Your task to perform on an android device: open app "The Home Depot" (install if not already installed) Image 0: 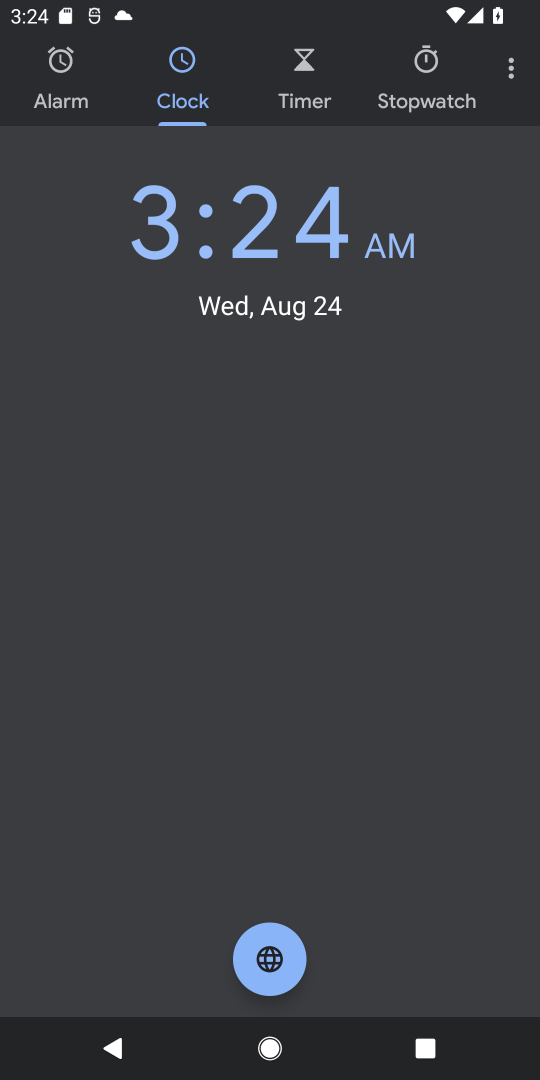
Step 0: press home button
Your task to perform on an android device: open app "The Home Depot" (install if not already installed) Image 1: 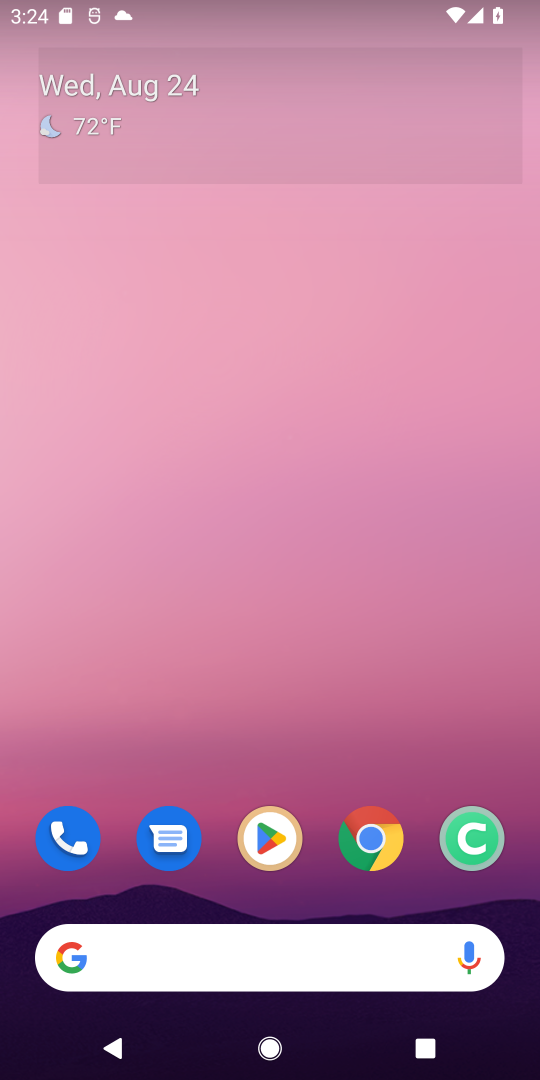
Step 1: click (266, 843)
Your task to perform on an android device: open app "The Home Depot" (install if not already installed) Image 2: 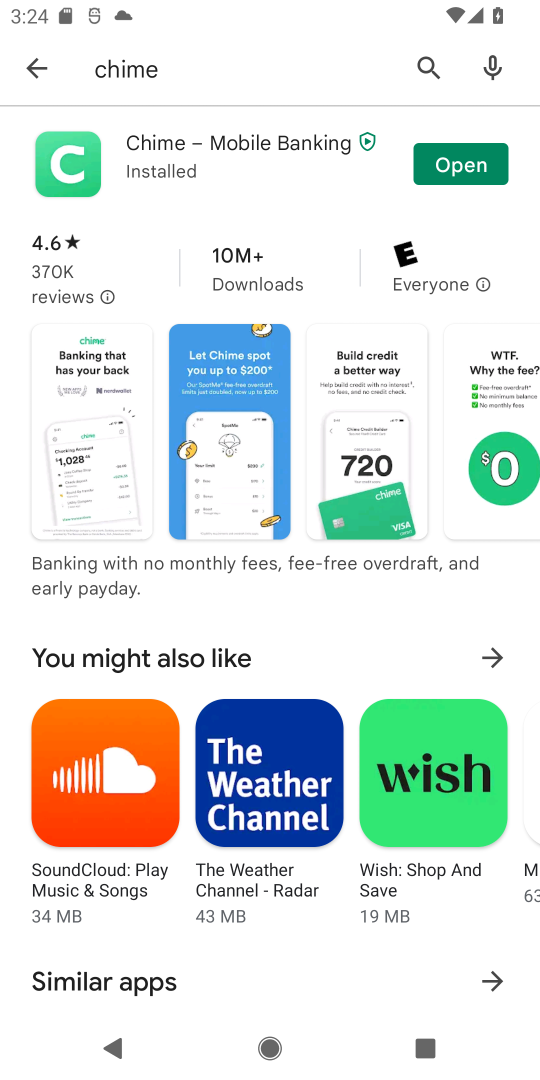
Step 2: click (14, 71)
Your task to perform on an android device: open app "The Home Depot" (install if not already installed) Image 3: 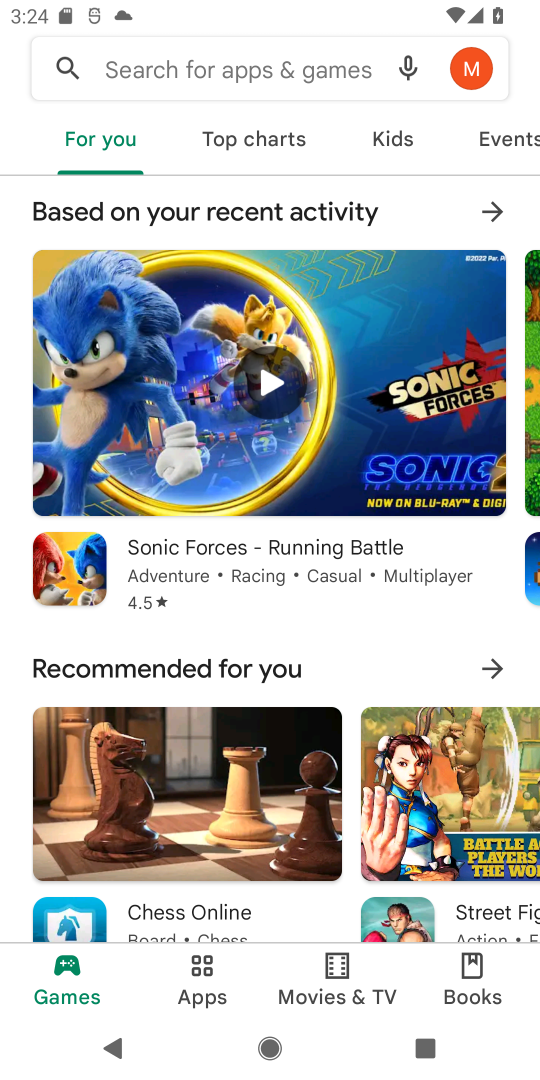
Step 3: click (246, 63)
Your task to perform on an android device: open app "The Home Depot" (install if not already installed) Image 4: 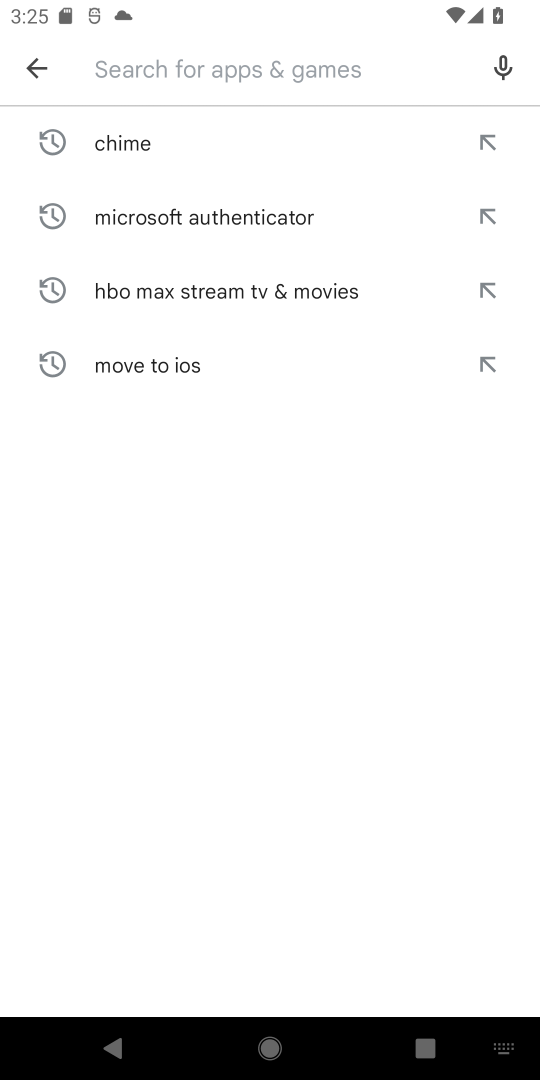
Step 4: click (6, 1074)
Your task to perform on an android device: open app "The Home Depot" (install if not already installed) Image 5: 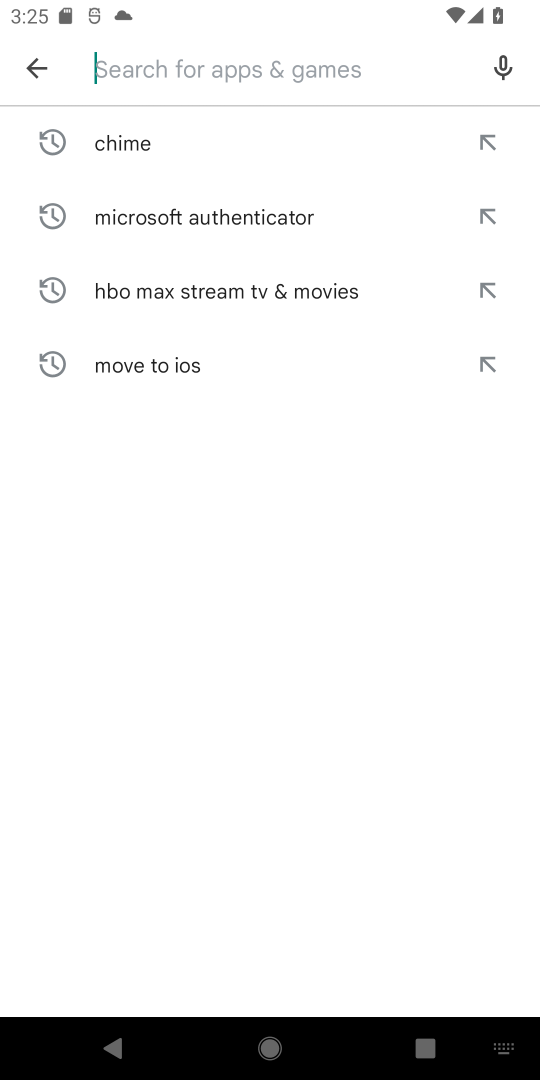
Step 5: type "The Home Depot"
Your task to perform on an android device: open app "The Home Depot" (install if not already installed) Image 6: 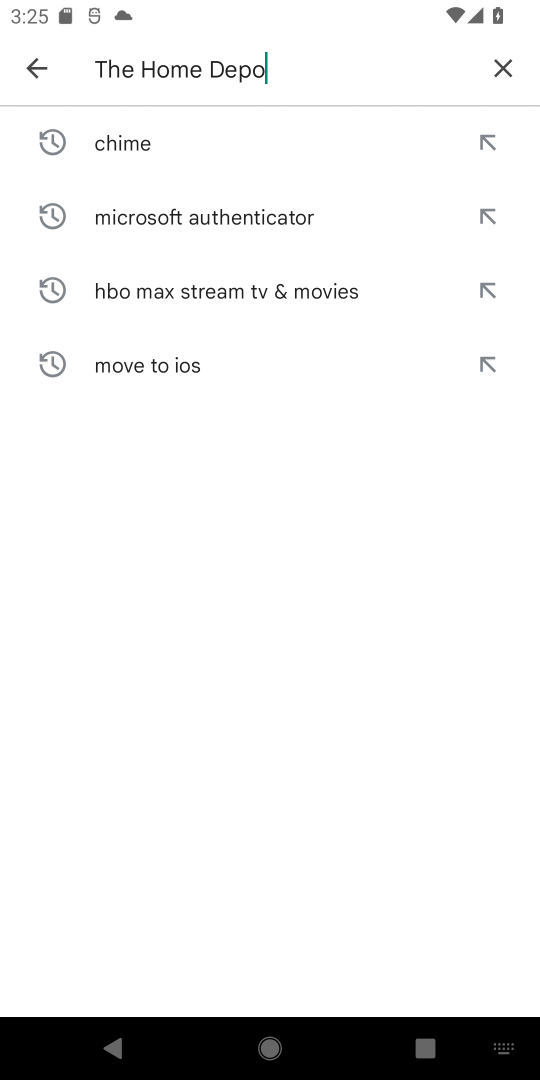
Step 6: drag from (6, 1074) to (518, 315)
Your task to perform on an android device: open app "The Home Depot" (install if not already installed) Image 7: 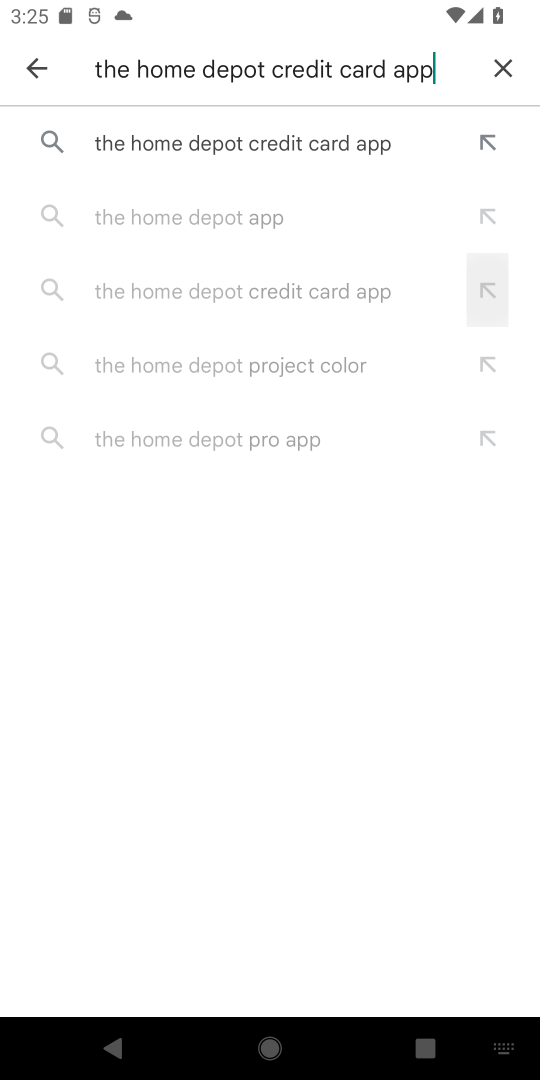
Step 7: click (248, 131)
Your task to perform on an android device: open app "The Home Depot" (install if not already installed) Image 8: 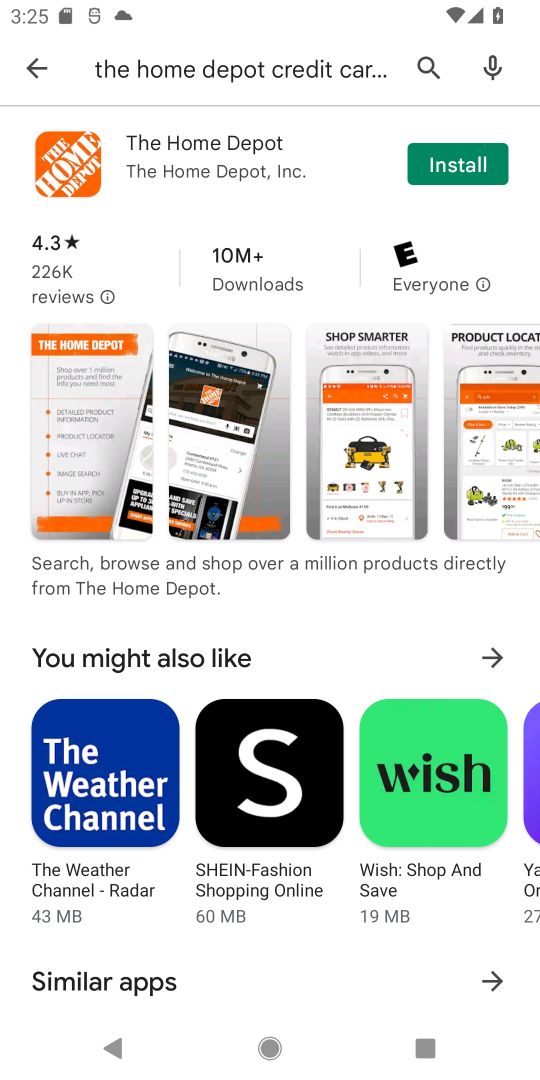
Step 8: click (486, 169)
Your task to perform on an android device: open app "The Home Depot" (install if not already installed) Image 9: 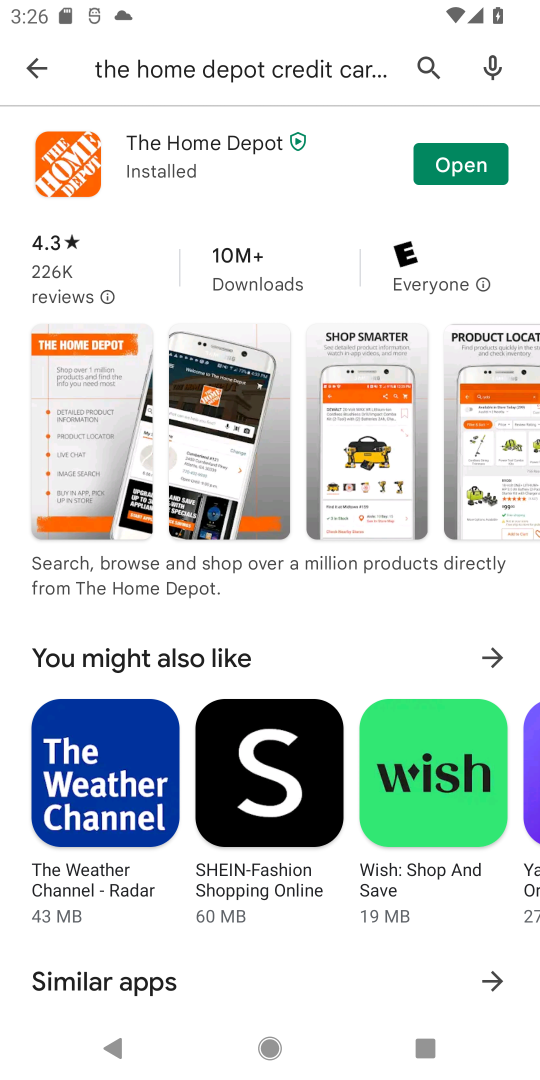
Step 9: click (454, 151)
Your task to perform on an android device: open app "The Home Depot" (install if not already installed) Image 10: 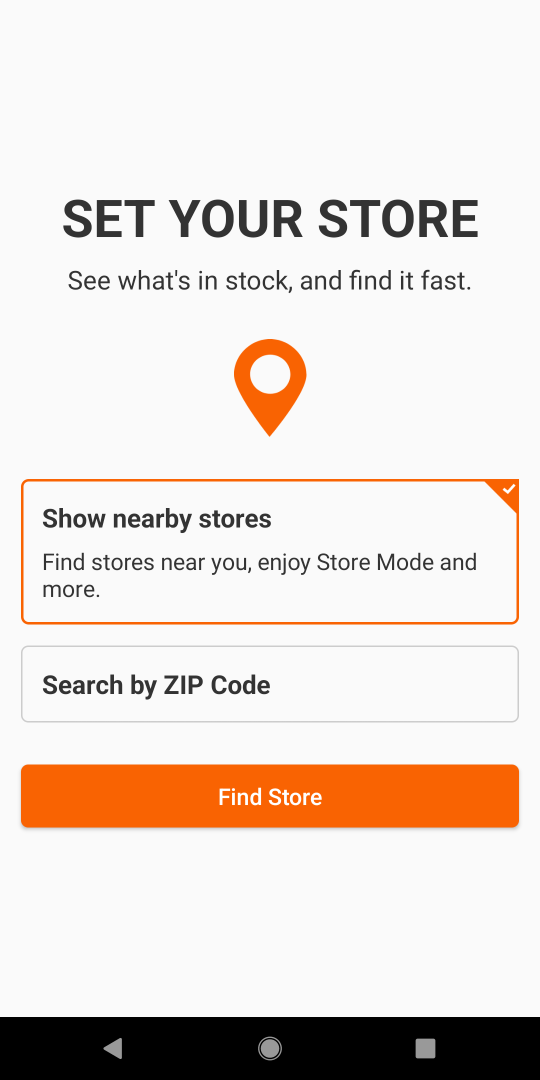
Step 10: task complete